Your task to perform on an android device: Open Youtube and go to the subscriptions tab Image 0: 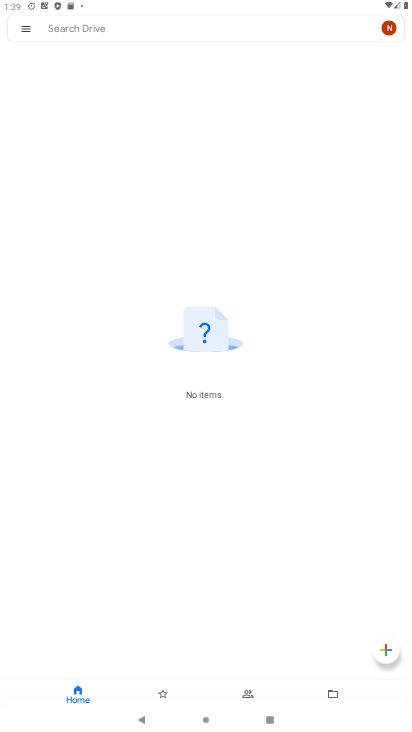
Step 0: press home button
Your task to perform on an android device: Open Youtube and go to the subscriptions tab Image 1: 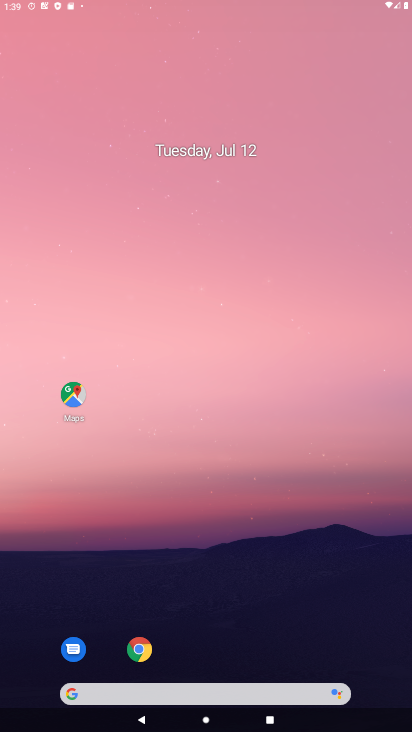
Step 1: drag from (331, 672) to (332, 12)
Your task to perform on an android device: Open Youtube and go to the subscriptions tab Image 2: 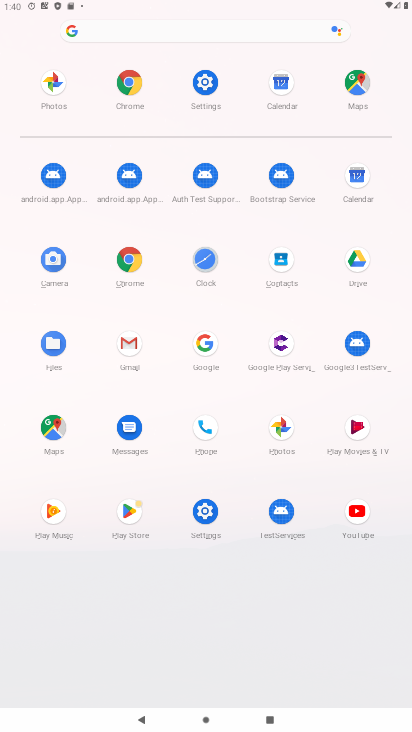
Step 2: click (350, 500)
Your task to perform on an android device: Open Youtube and go to the subscriptions tab Image 3: 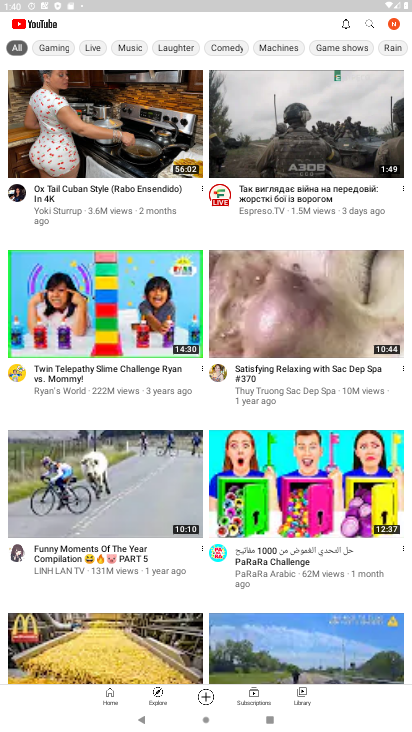
Step 3: click (257, 693)
Your task to perform on an android device: Open Youtube and go to the subscriptions tab Image 4: 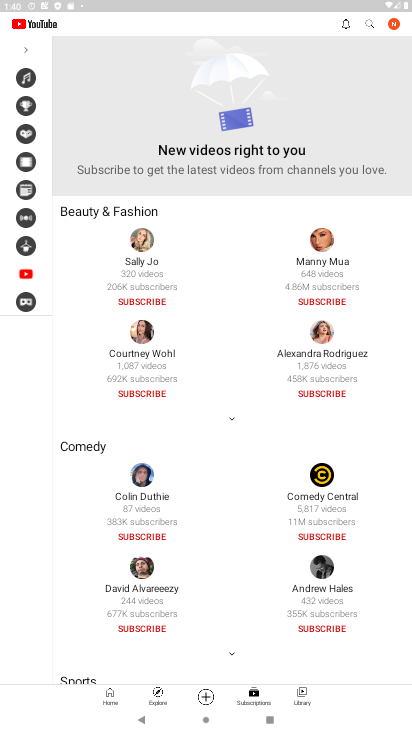
Step 4: task complete